Your task to perform on an android device: turn notification dots on Image 0: 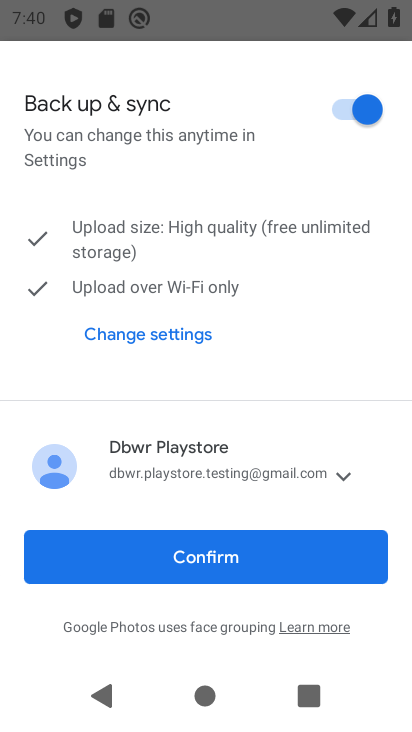
Step 0: press back button
Your task to perform on an android device: turn notification dots on Image 1: 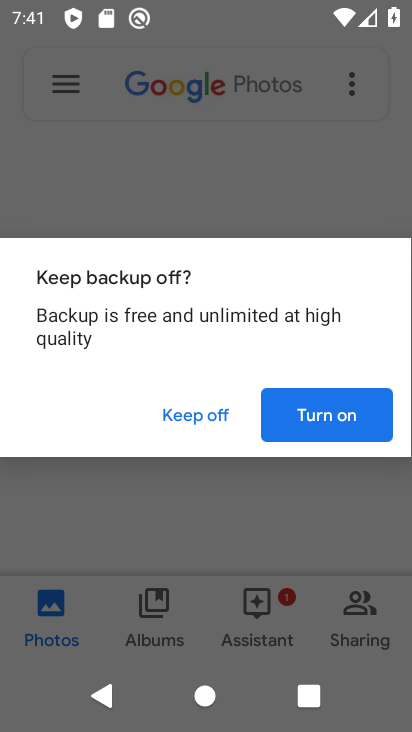
Step 1: press back button
Your task to perform on an android device: turn notification dots on Image 2: 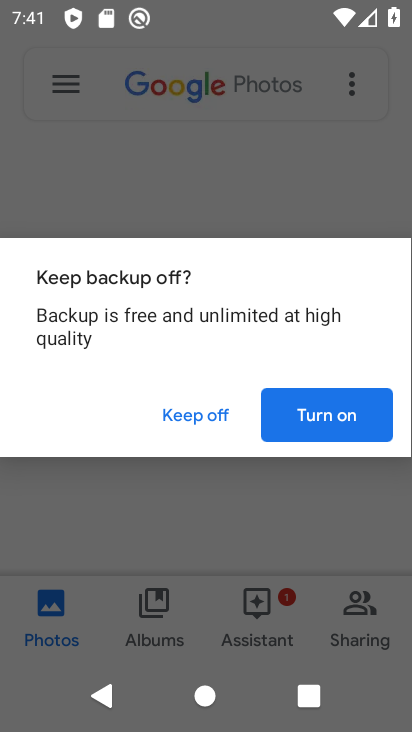
Step 2: press back button
Your task to perform on an android device: turn notification dots on Image 3: 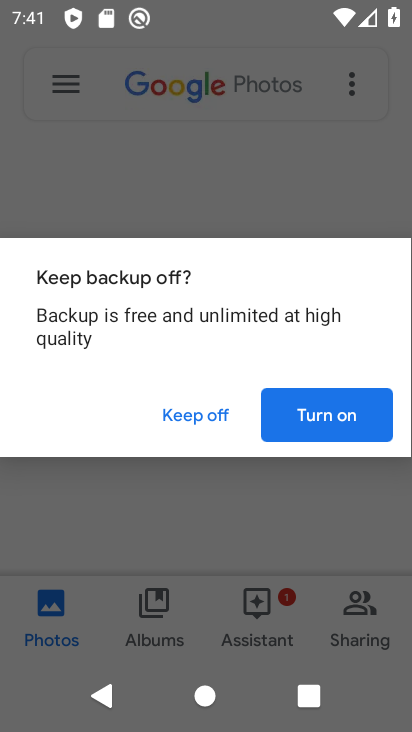
Step 3: press home button
Your task to perform on an android device: turn notification dots on Image 4: 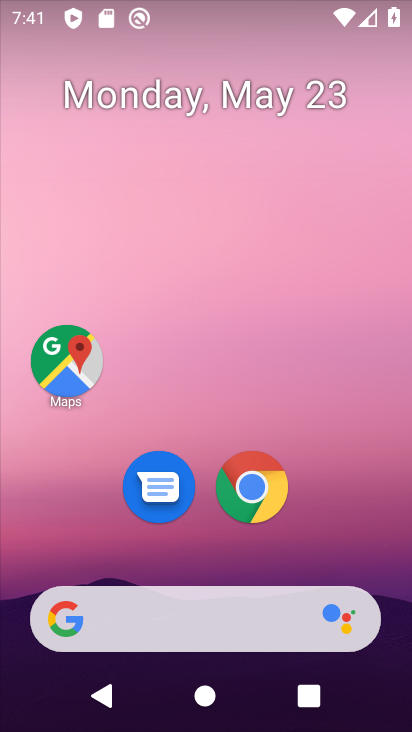
Step 4: drag from (291, 519) to (304, 4)
Your task to perform on an android device: turn notification dots on Image 5: 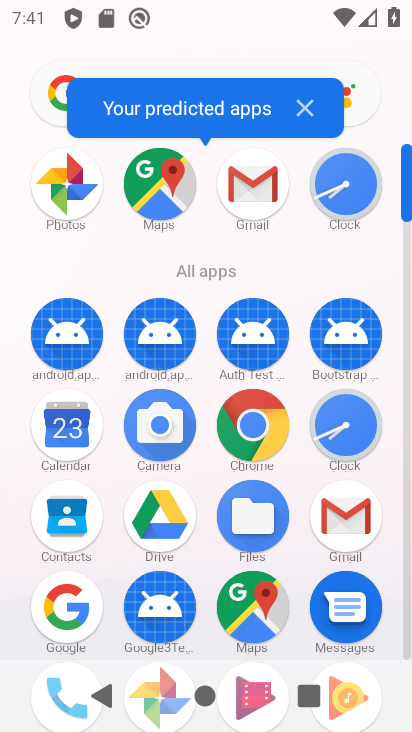
Step 5: drag from (11, 532) to (45, 243)
Your task to perform on an android device: turn notification dots on Image 6: 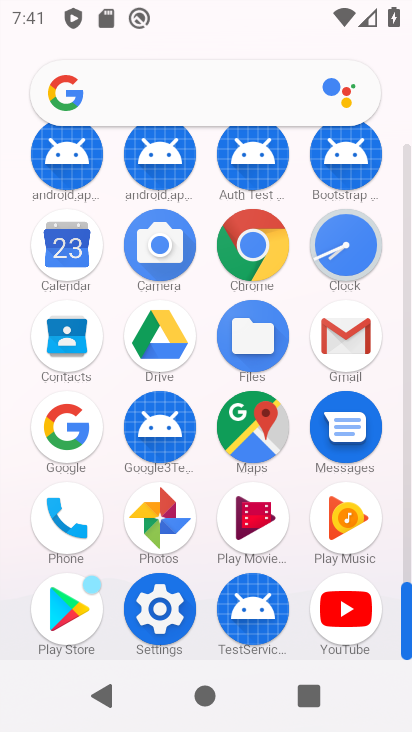
Step 6: click (157, 609)
Your task to perform on an android device: turn notification dots on Image 7: 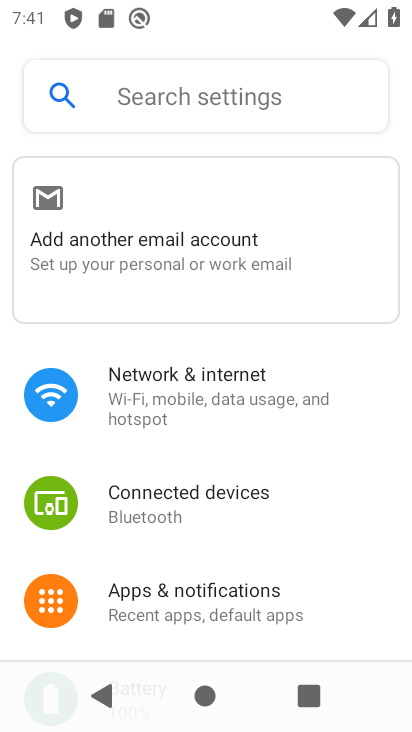
Step 7: click (215, 600)
Your task to perform on an android device: turn notification dots on Image 8: 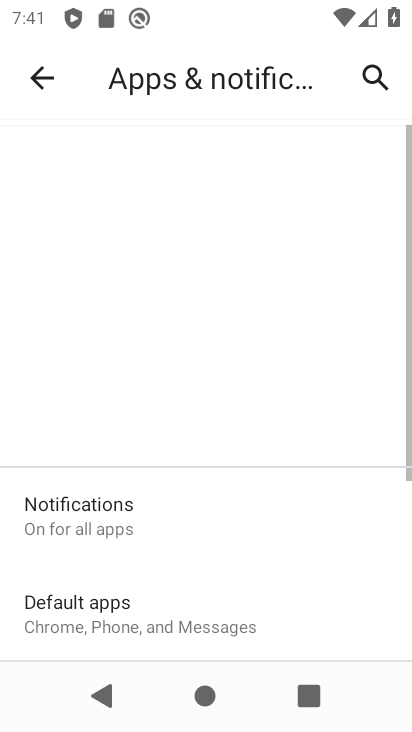
Step 8: click (180, 514)
Your task to perform on an android device: turn notification dots on Image 9: 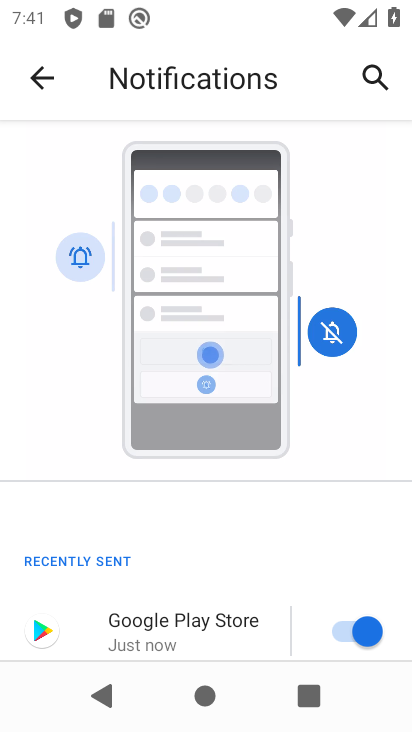
Step 9: drag from (173, 529) to (241, 115)
Your task to perform on an android device: turn notification dots on Image 10: 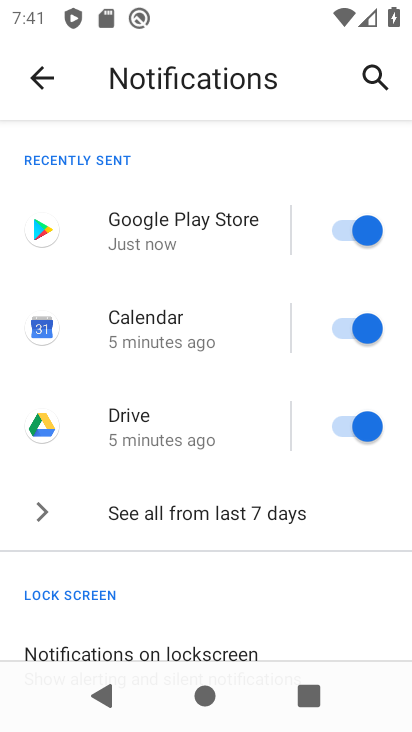
Step 10: drag from (160, 595) to (242, 113)
Your task to perform on an android device: turn notification dots on Image 11: 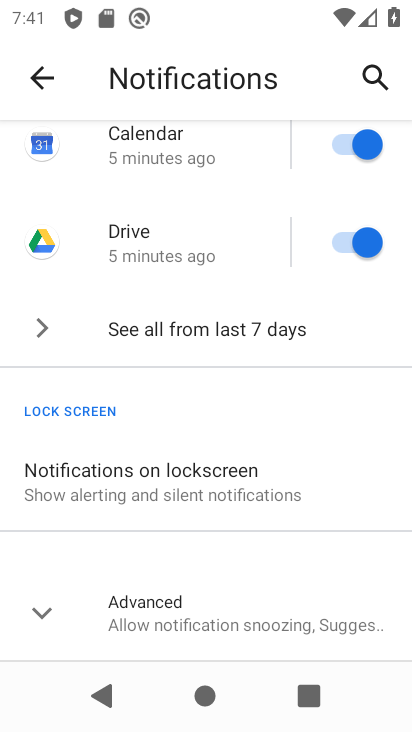
Step 11: click (28, 634)
Your task to perform on an android device: turn notification dots on Image 12: 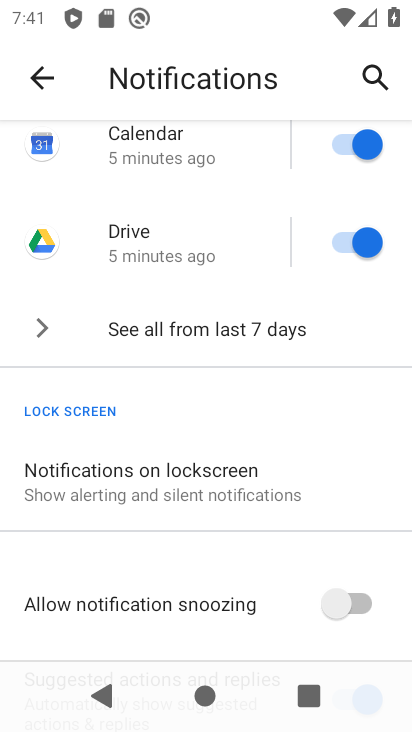
Step 12: task complete